Your task to perform on an android device: turn off airplane mode Image 0: 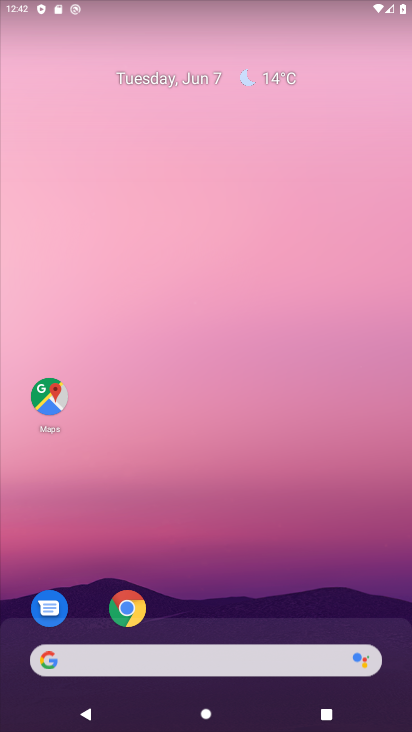
Step 0: drag from (247, 1) to (254, 388)
Your task to perform on an android device: turn off airplane mode Image 1: 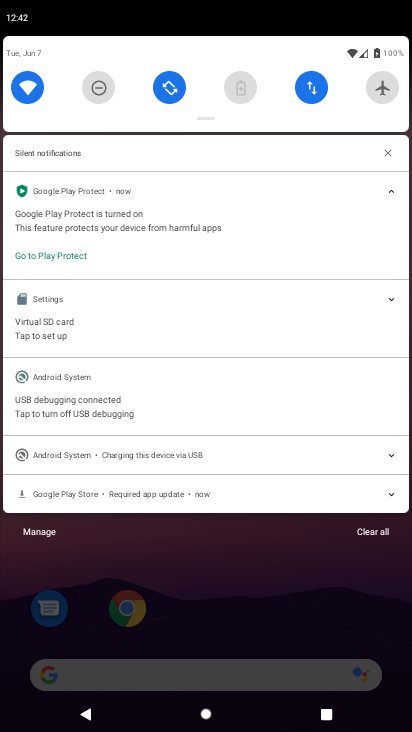
Step 1: task complete